Your task to perform on an android device: Open calendar and show me the fourth week of next month Image 0: 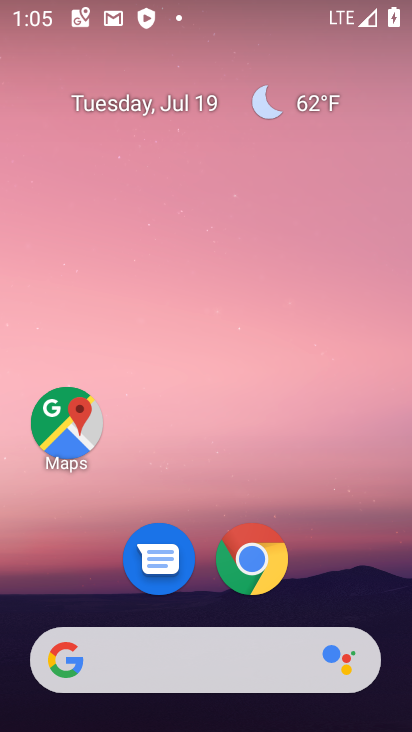
Step 0: drag from (226, 666) to (363, 117)
Your task to perform on an android device: Open calendar and show me the fourth week of next month Image 1: 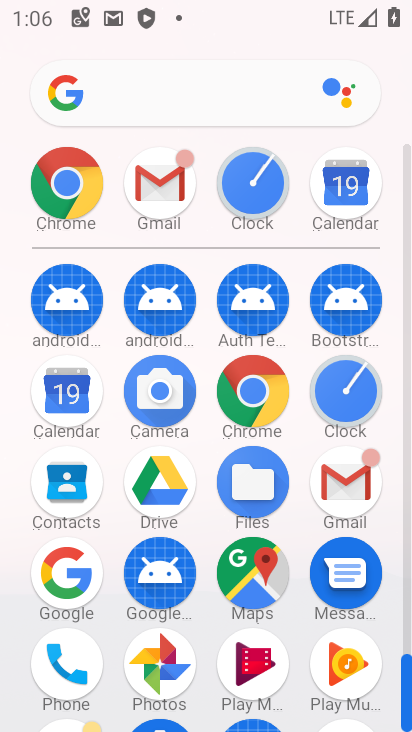
Step 1: click (83, 403)
Your task to perform on an android device: Open calendar and show me the fourth week of next month Image 2: 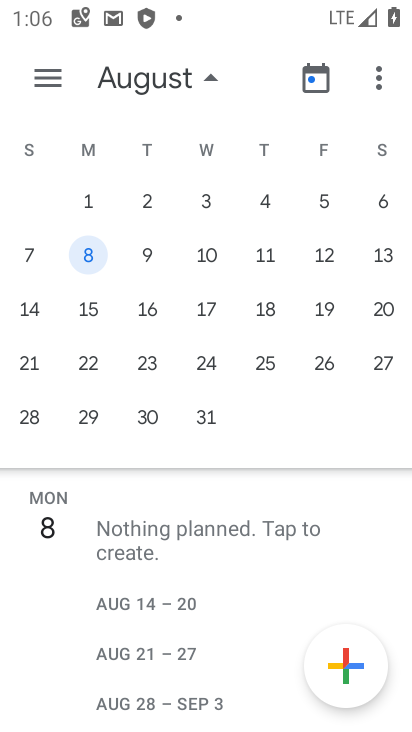
Step 2: click (89, 371)
Your task to perform on an android device: Open calendar and show me the fourth week of next month Image 3: 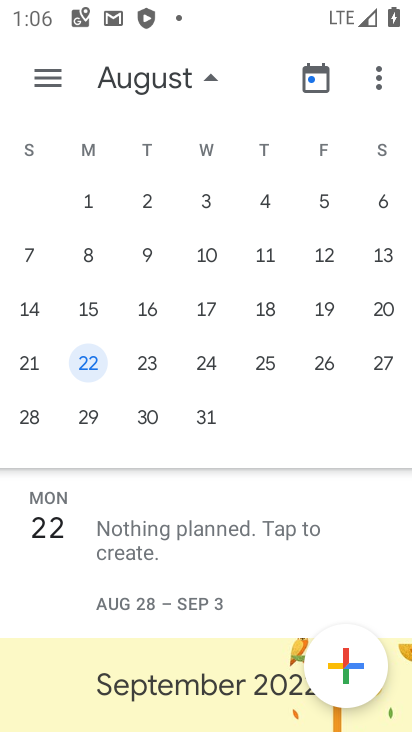
Step 3: task complete